Your task to perform on an android device: Open CNN.com Image 0: 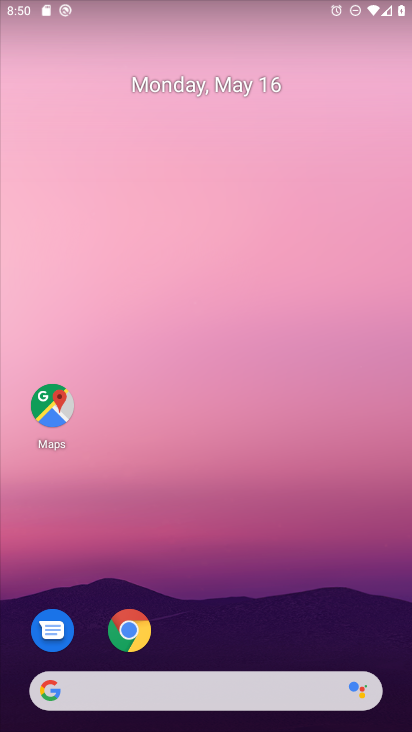
Step 0: click (189, 699)
Your task to perform on an android device: Open CNN.com Image 1: 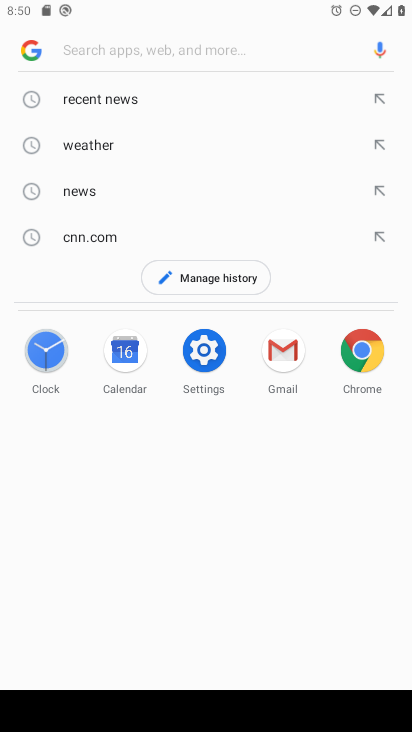
Step 1: click (76, 249)
Your task to perform on an android device: Open CNN.com Image 2: 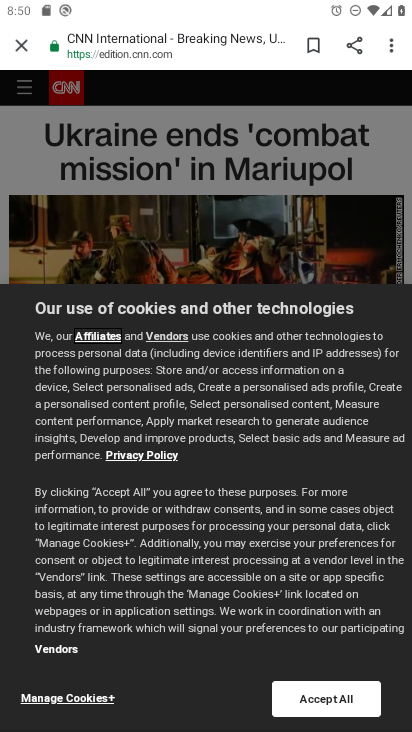
Step 2: task complete